Your task to perform on an android device: set the stopwatch Image 0: 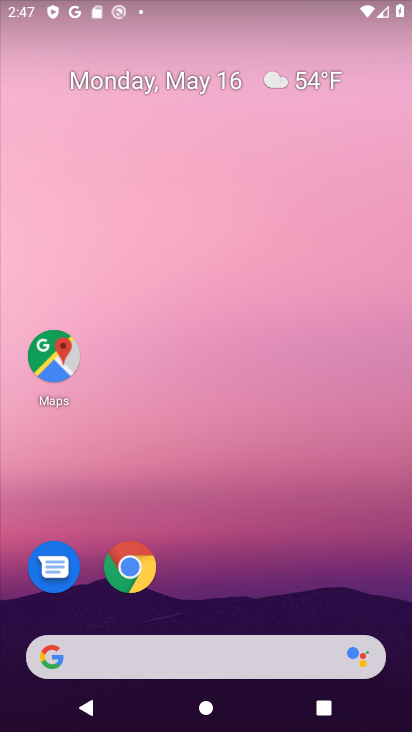
Step 0: drag from (267, 543) to (188, 117)
Your task to perform on an android device: set the stopwatch Image 1: 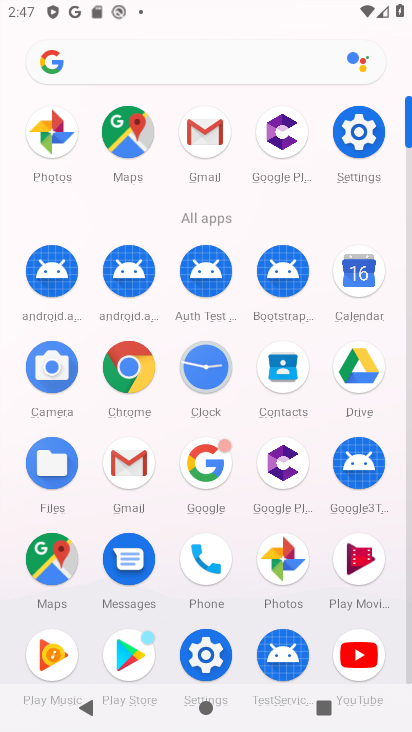
Step 1: click (206, 367)
Your task to perform on an android device: set the stopwatch Image 2: 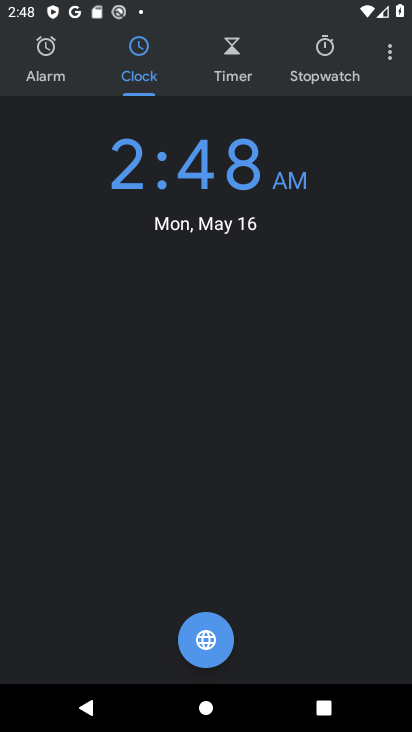
Step 2: click (327, 44)
Your task to perform on an android device: set the stopwatch Image 3: 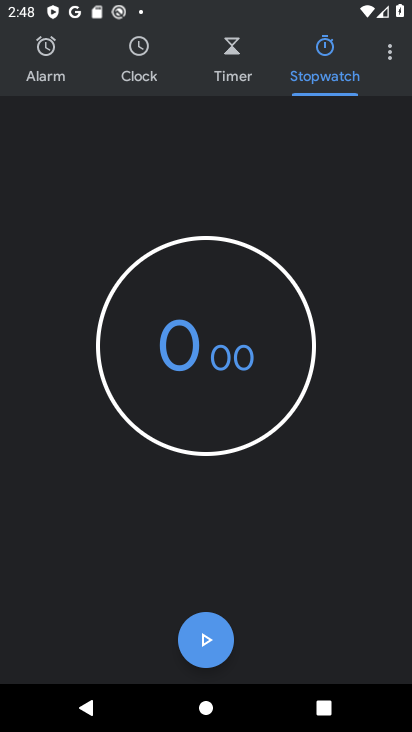
Step 3: click (215, 626)
Your task to perform on an android device: set the stopwatch Image 4: 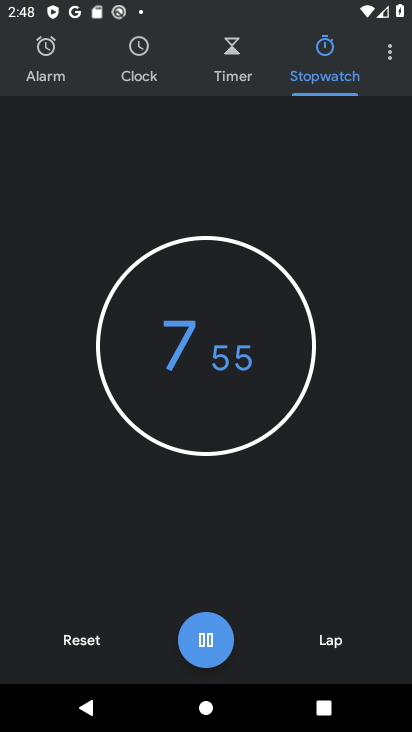
Step 4: task complete